Your task to perform on an android device: turn on wifi Image 0: 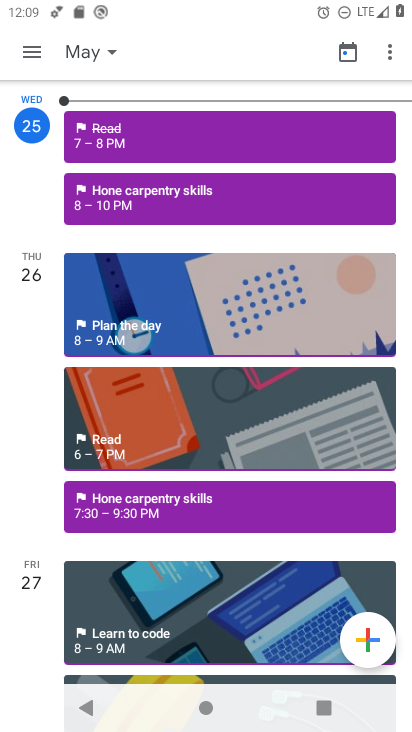
Step 0: press back button
Your task to perform on an android device: turn on wifi Image 1: 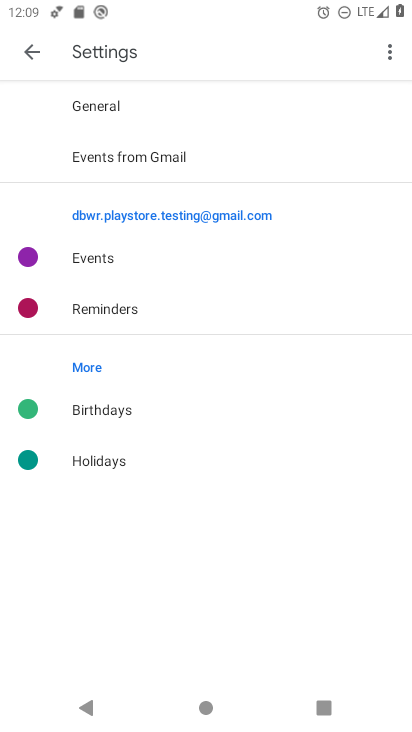
Step 1: press back button
Your task to perform on an android device: turn on wifi Image 2: 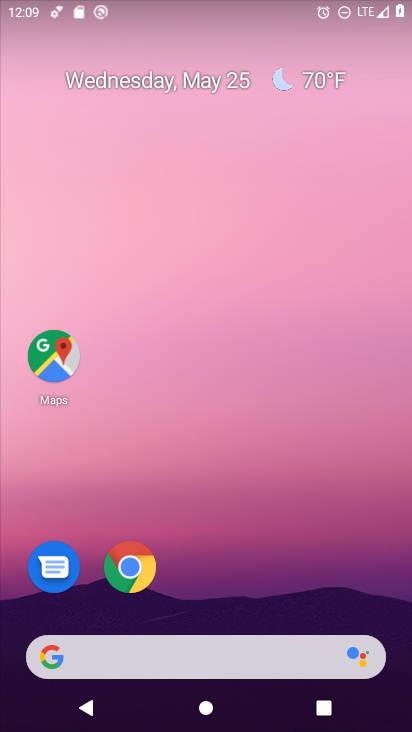
Step 2: drag from (399, 680) to (375, 227)
Your task to perform on an android device: turn on wifi Image 3: 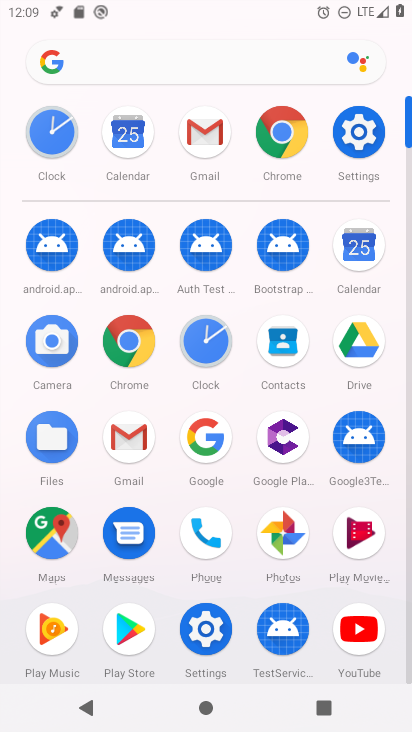
Step 3: click (363, 141)
Your task to perform on an android device: turn on wifi Image 4: 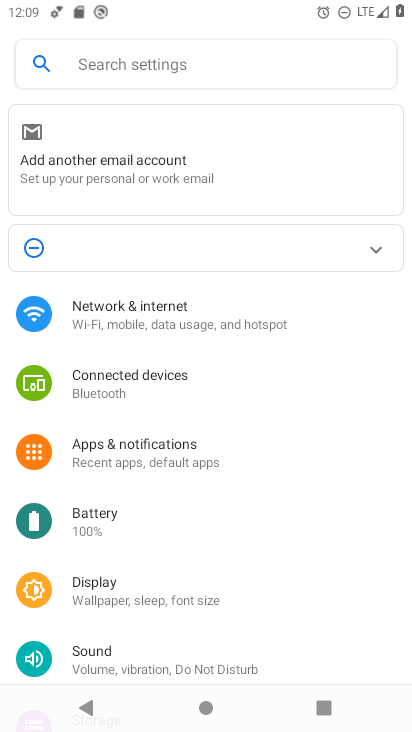
Step 4: click (122, 319)
Your task to perform on an android device: turn on wifi Image 5: 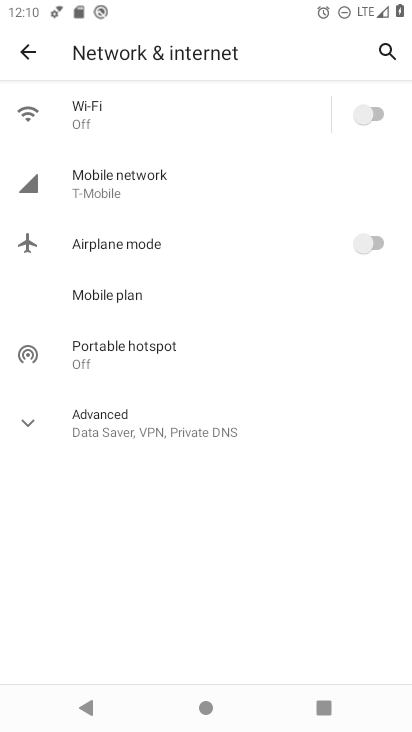
Step 5: click (380, 114)
Your task to perform on an android device: turn on wifi Image 6: 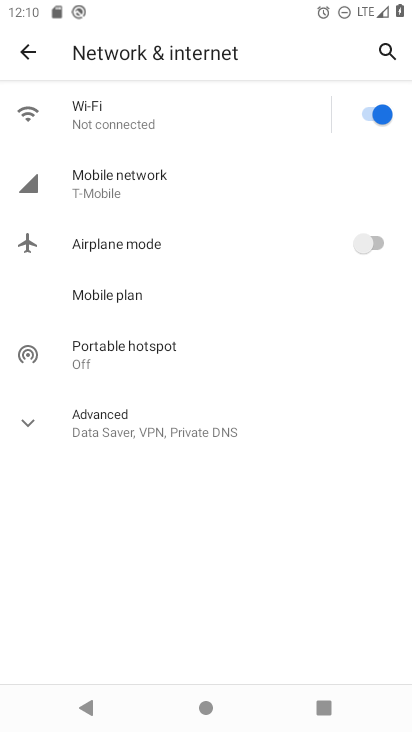
Step 6: task complete